Your task to perform on an android device: Open settings Image 0: 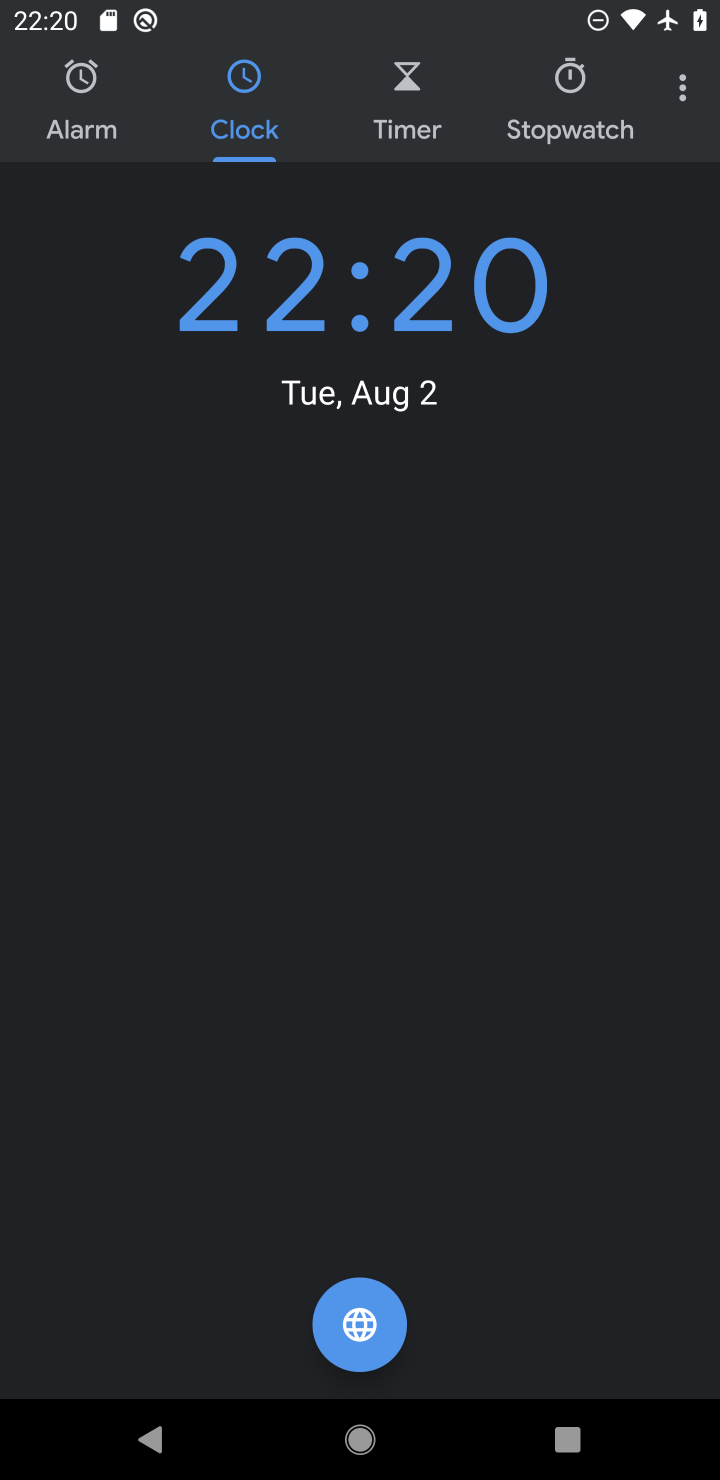
Step 0: press home button
Your task to perform on an android device: Open settings Image 1: 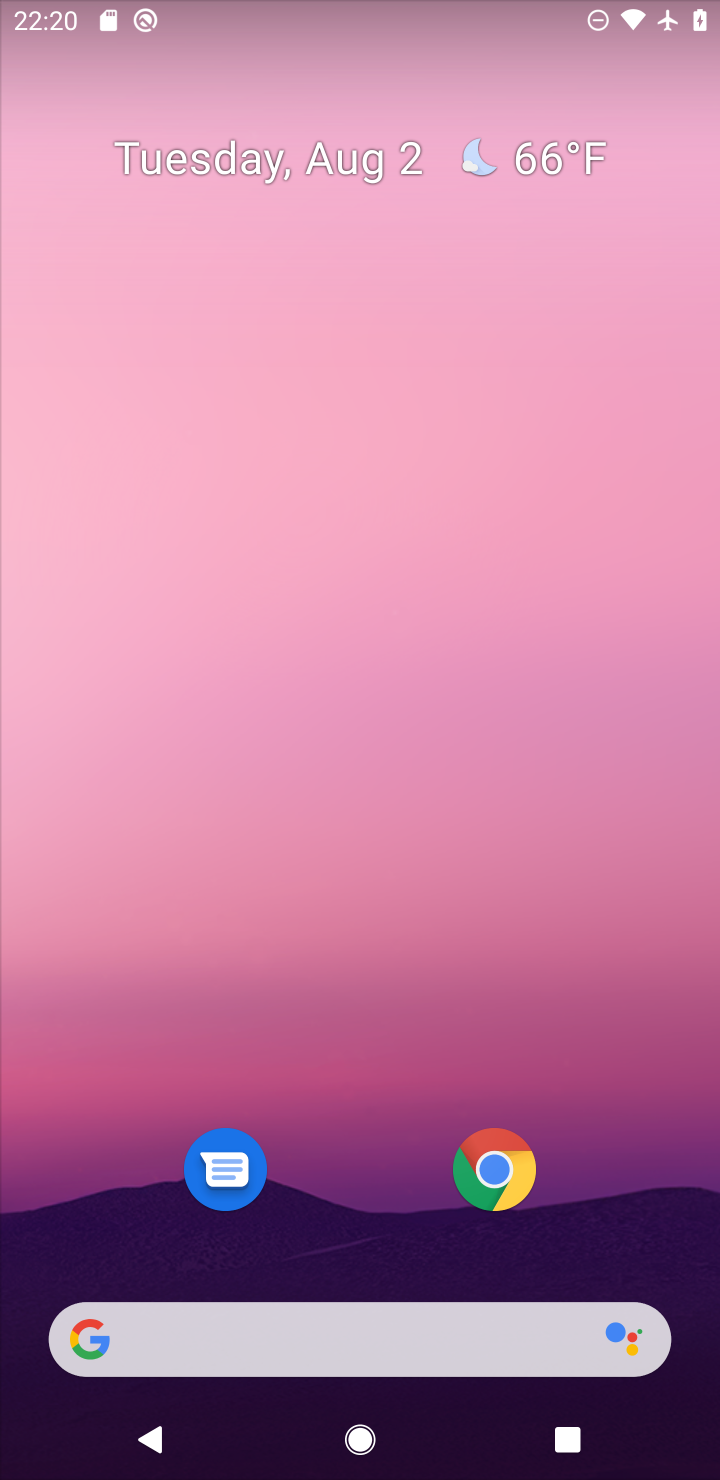
Step 1: drag from (346, 1222) to (409, 2)
Your task to perform on an android device: Open settings Image 2: 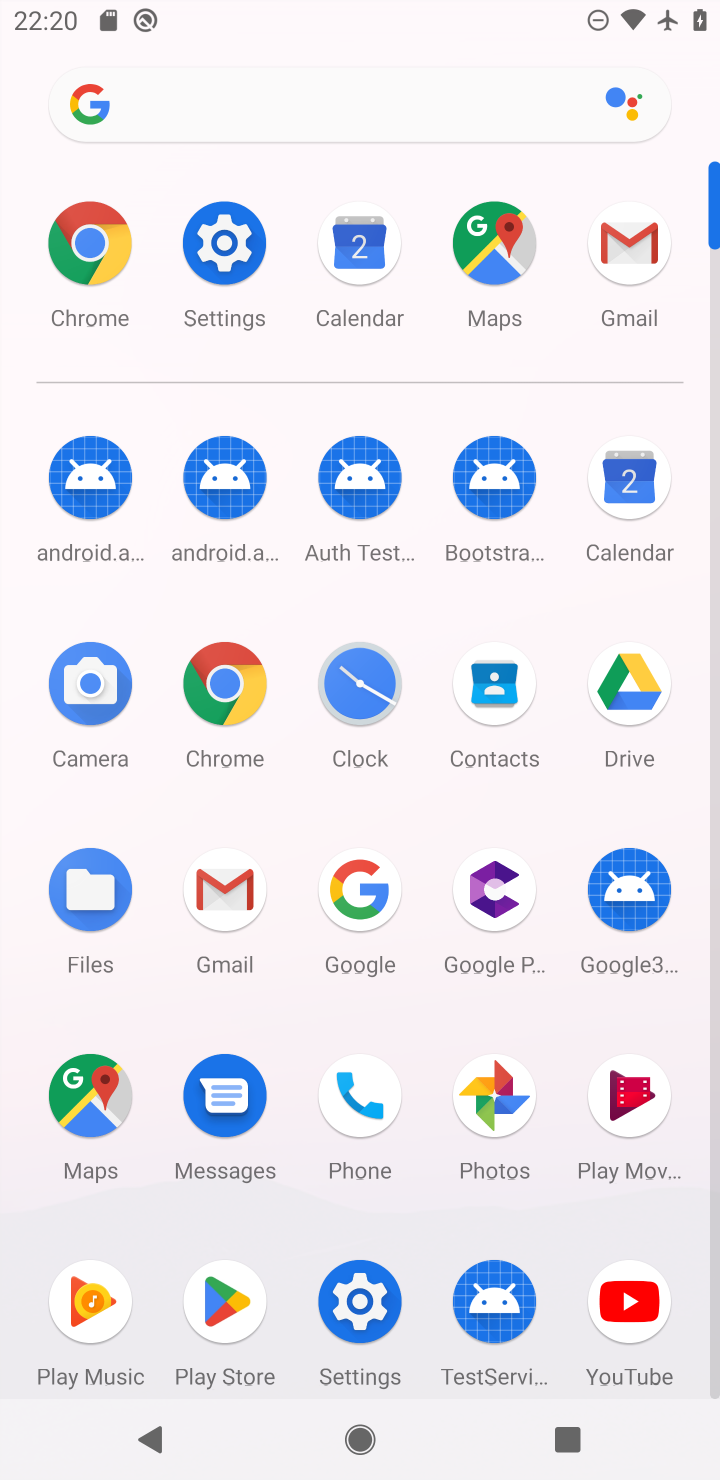
Step 2: click (220, 255)
Your task to perform on an android device: Open settings Image 3: 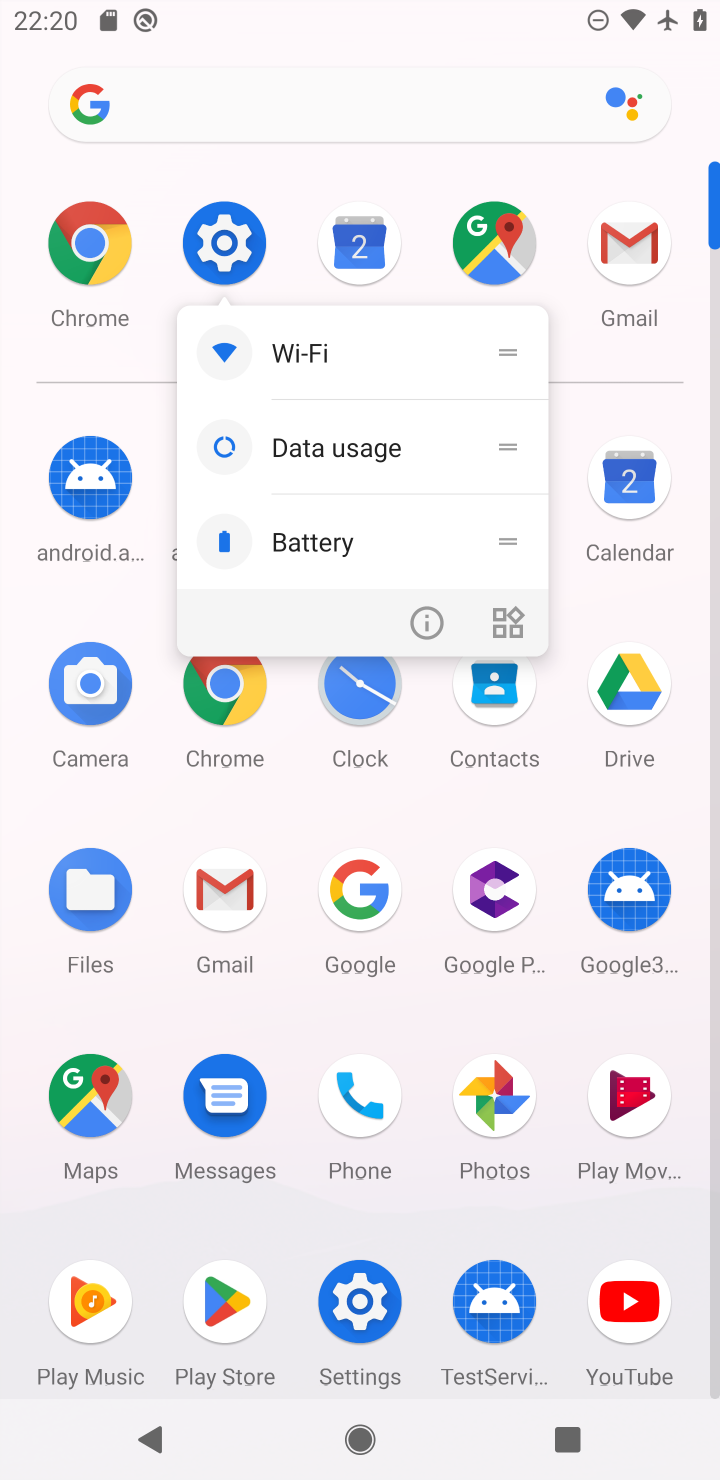
Step 3: click (220, 265)
Your task to perform on an android device: Open settings Image 4: 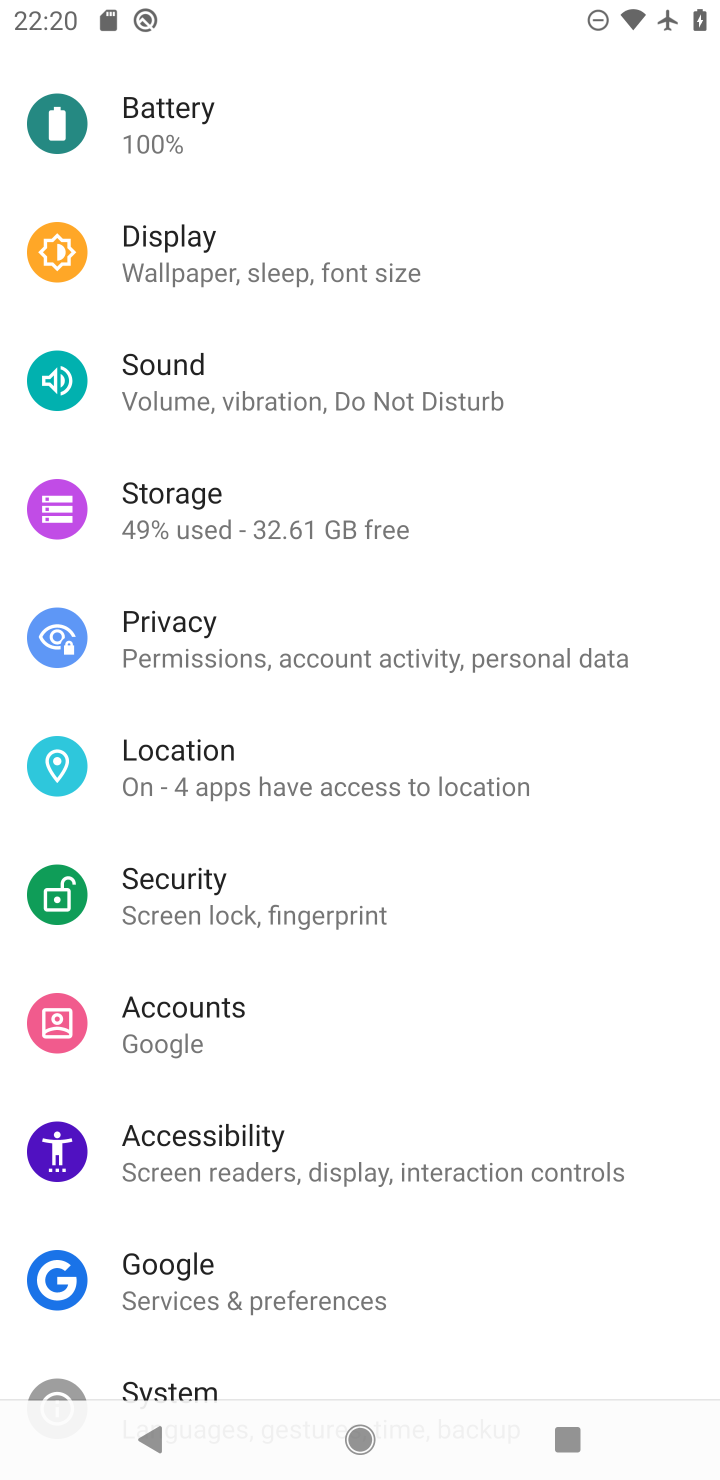
Step 4: task complete